Your task to perform on an android device: Open calendar and show me the fourth week of next month Image 0: 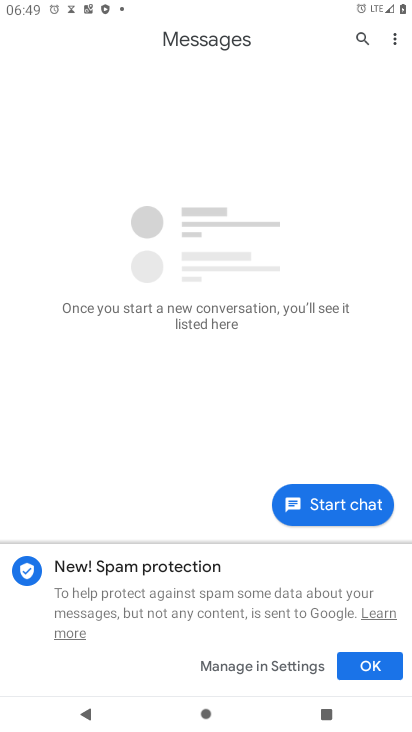
Step 0: press home button
Your task to perform on an android device: Open calendar and show me the fourth week of next month Image 1: 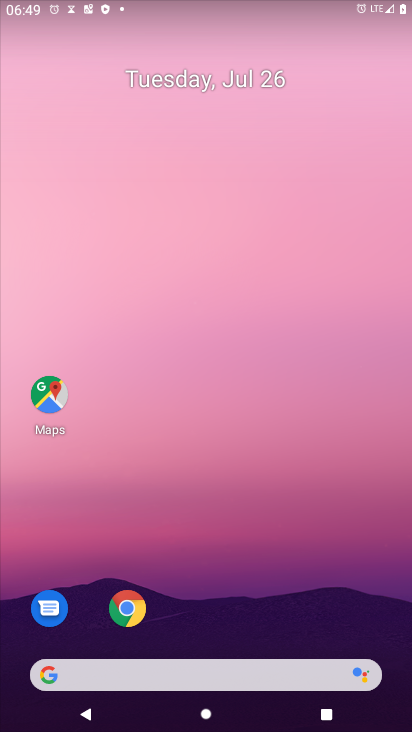
Step 1: drag from (233, 609) to (247, 134)
Your task to perform on an android device: Open calendar and show me the fourth week of next month Image 2: 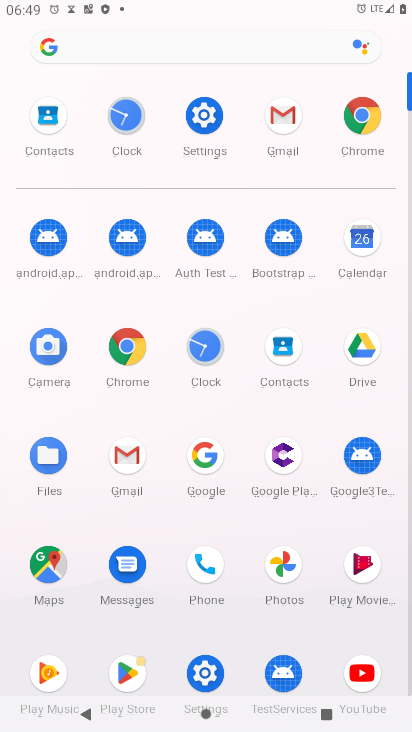
Step 2: click (378, 247)
Your task to perform on an android device: Open calendar and show me the fourth week of next month Image 3: 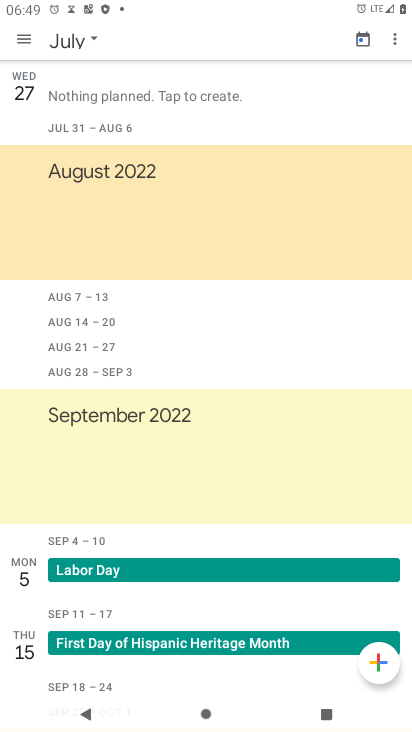
Step 3: click (75, 41)
Your task to perform on an android device: Open calendar and show me the fourth week of next month Image 4: 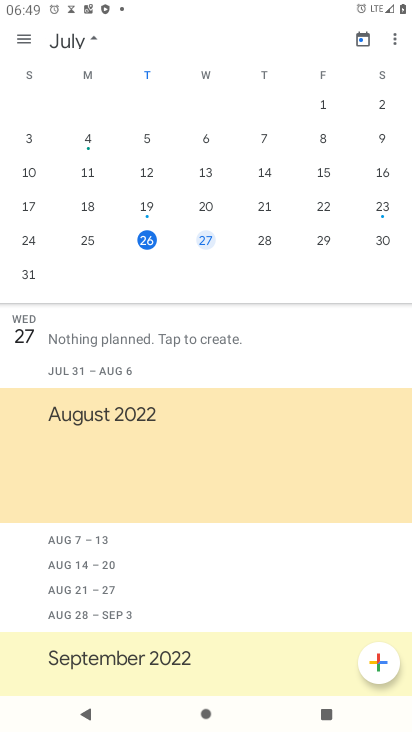
Step 4: drag from (311, 208) to (117, 208)
Your task to perform on an android device: Open calendar and show me the fourth week of next month Image 5: 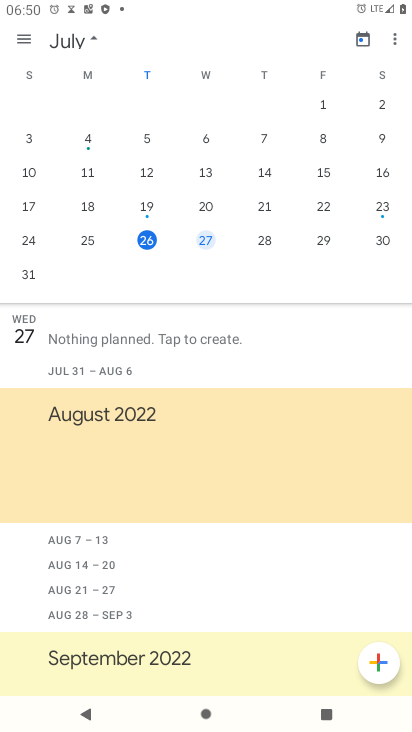
Step 5: drag from (332, 180) to (155, 173)
Your task to perform on an android device: Open calendar and show me the fourth week of next month Image 6: 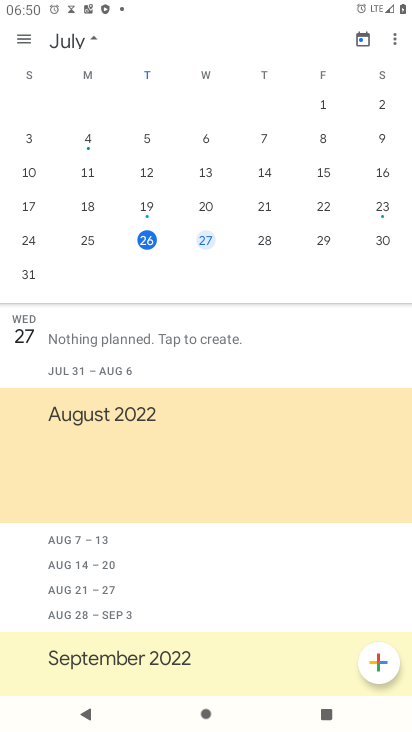
Step 6: drag from (362, 170) to (209, 172)
Your task to perform on an android device: Open calendar and show me the fourth week of next month Image 7: 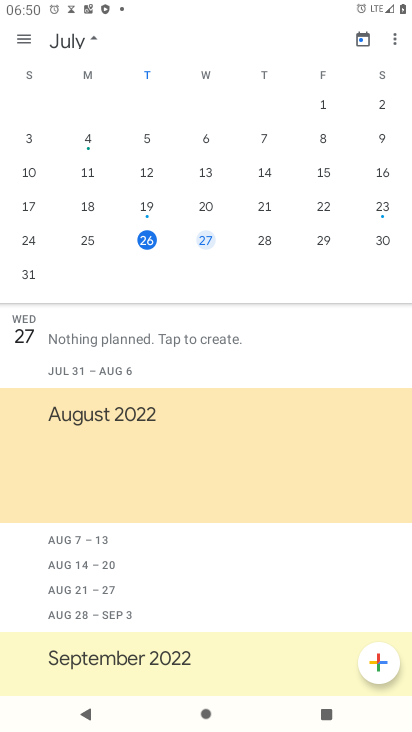
Step 7: drag from (272, 168) to (36, 163)
Your task to perform on an android device: Open calendar and show me the fourth week of next month Image 8: 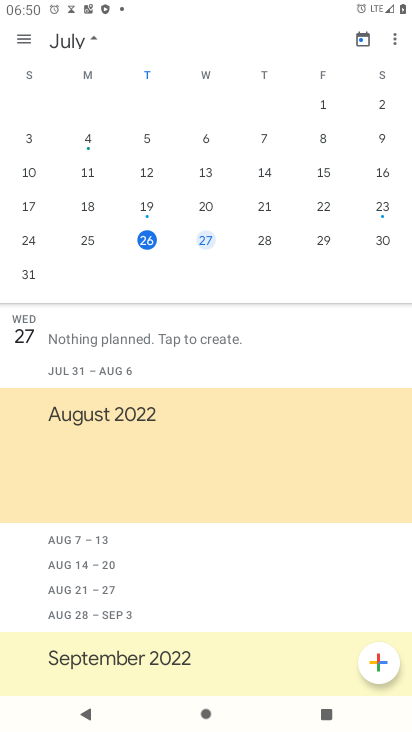
Step 8: drag from (279, 137) to (23, 128)
Your task to perform on an android device: Open calendar and show me the fourth week of next month Image 9: 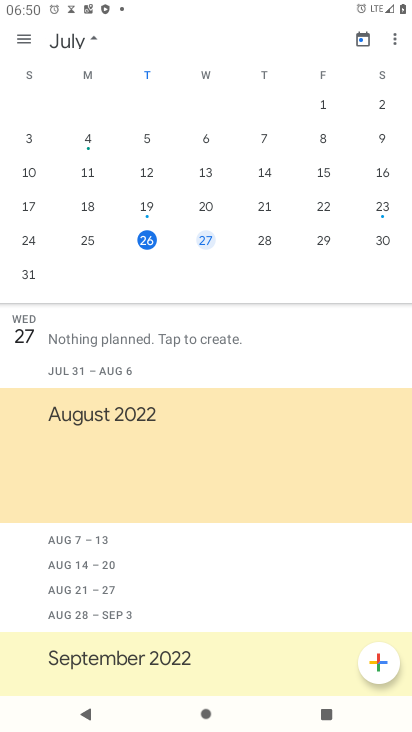
Step 9: drag from (338, 167) to (15, 205)
Your task to perform on an android device: Open calendar and show me the fourth week of next month Image 10: 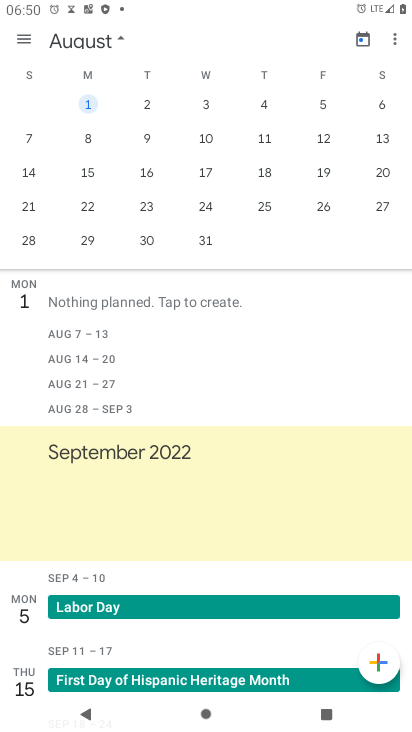
Step 10: click (37, 208)
Your task to perform on an android device: Open calendar and show me the fourth week of next month Image 11: 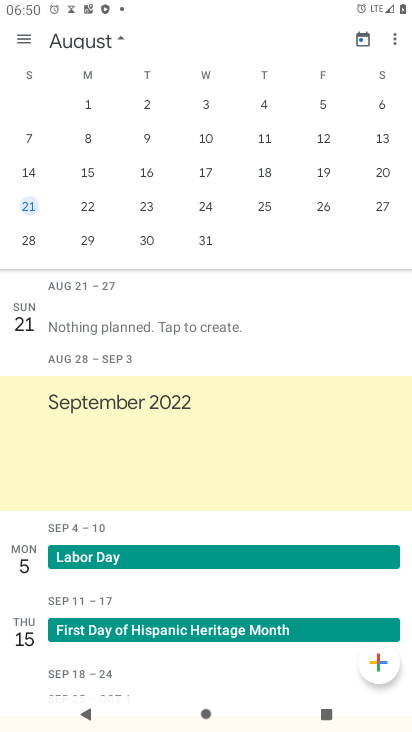
Step 11: click (78, 212)
Your task to perform on an android device: Open calendar and show me the fourth week of next month Image 12: 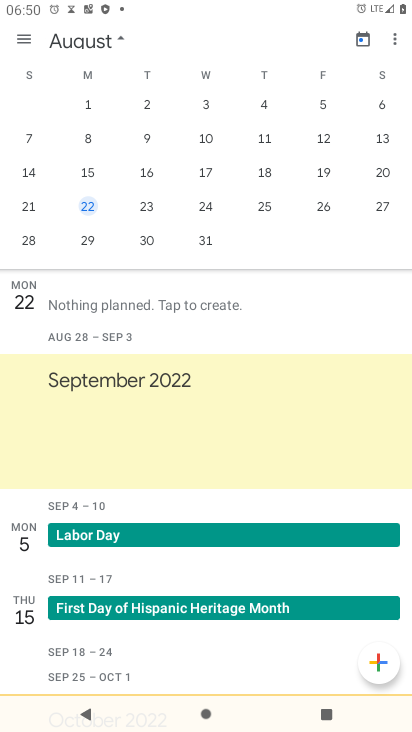
Step 12: click (148, 213)
Your task to perform on an android device: Open calendar and show me the fourth week of next month Image 13: 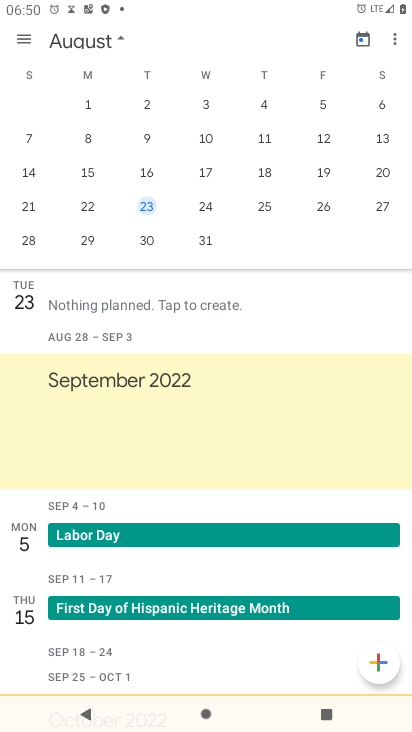
Step 13: click (206, 201)
Your task to perform on an android device: Open calendar and show me the fourth week of next month Image 14: 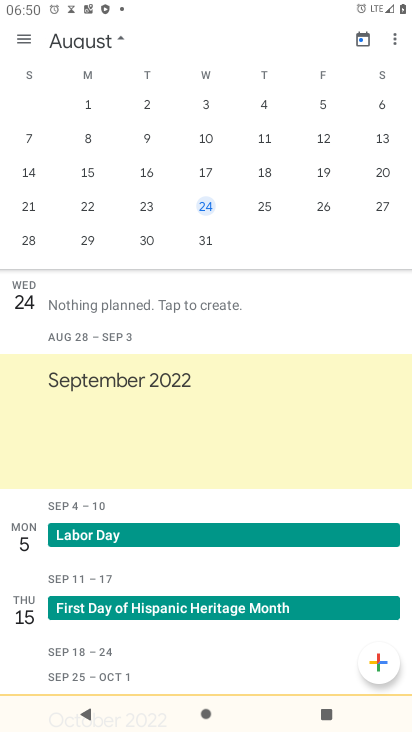
Step 14: click (261, 210)
Your task to perform on an android device: Open calendar and show me the fourth week of next month Image 15: 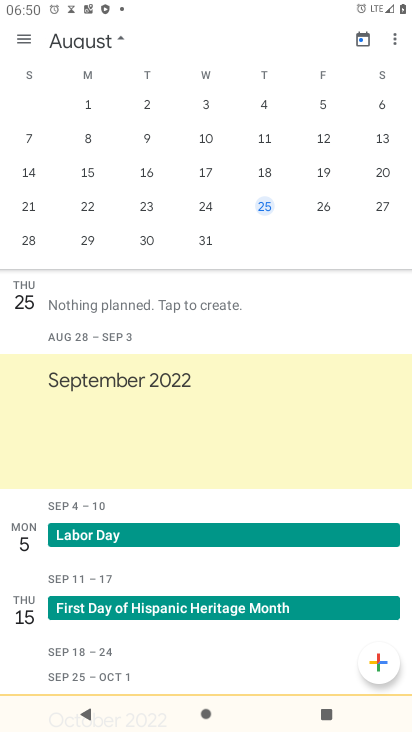
Step 15: click (320, 204)
Your task to perform on an android device: Open calendar and show me the fourth week of next month Image 16: 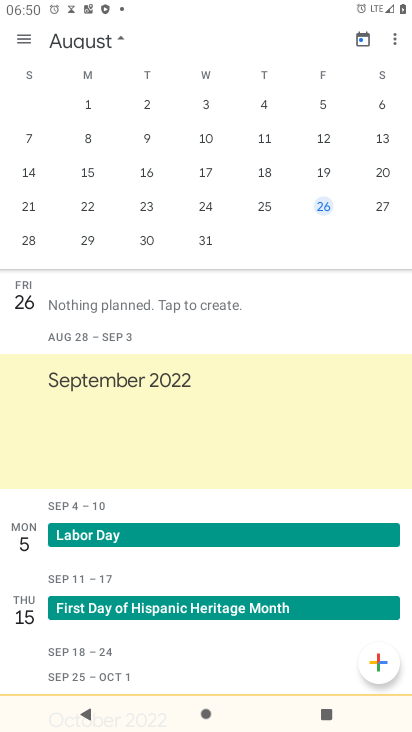
Step 16: click (375, 208)
Your task to perform on an android device: Open calendar and show me the fourth week of next month Image 17: 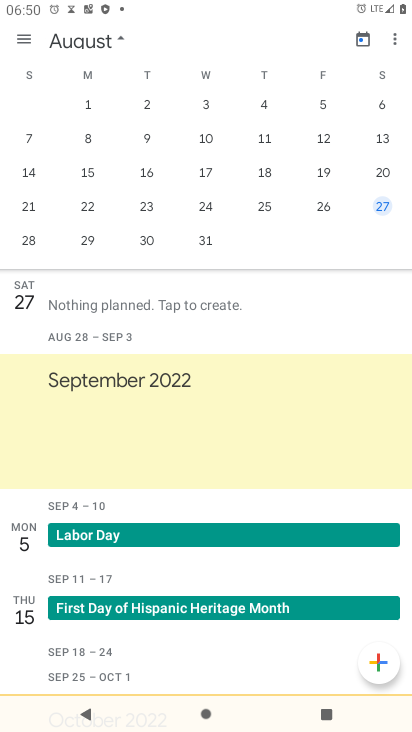
Step 17: click (24, 242)
Your task to perform on an android device: Open calendar and show me the fourth week of next month Image 18: 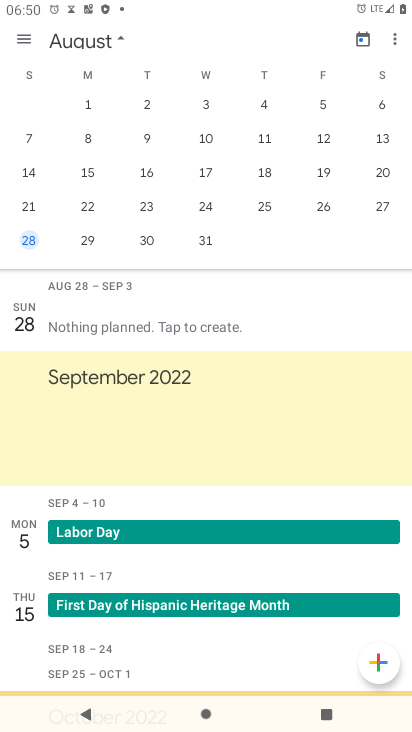
Step 18: task complete